Your task to perform on an android device: turn notification dots on Image 0: 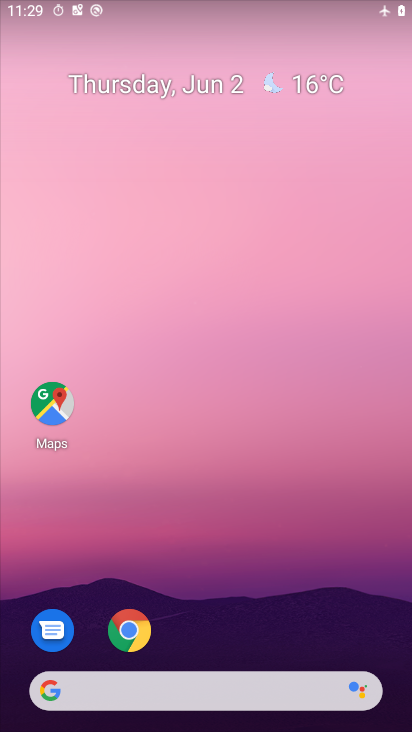
Step 0: drag from (241, 639) to (320, 16)
Your task to perform on an android device: turn notification dots on Image 1: 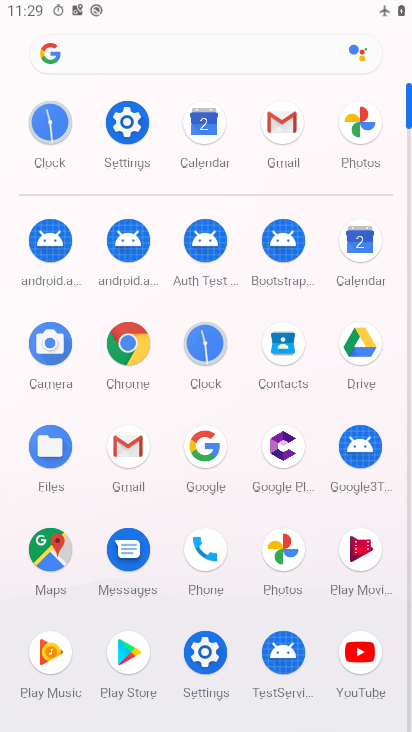
Step 1: click (124, 141)
Your task to perform on an android device: turn notification dots on Image 2: 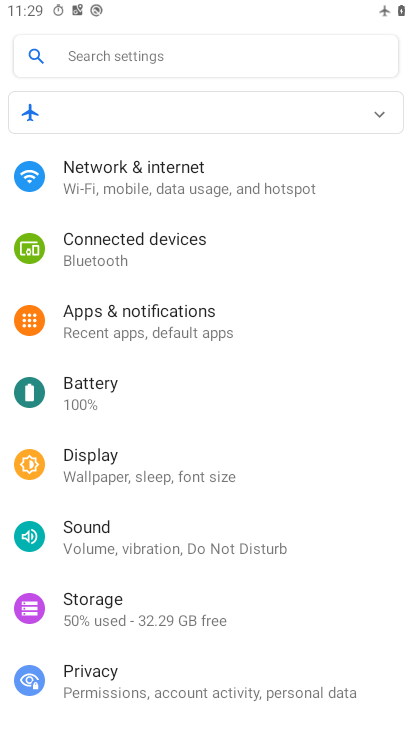
Step 2: click (218, 336)
Your task to perform on an android device: turn notification dots on Image 3: 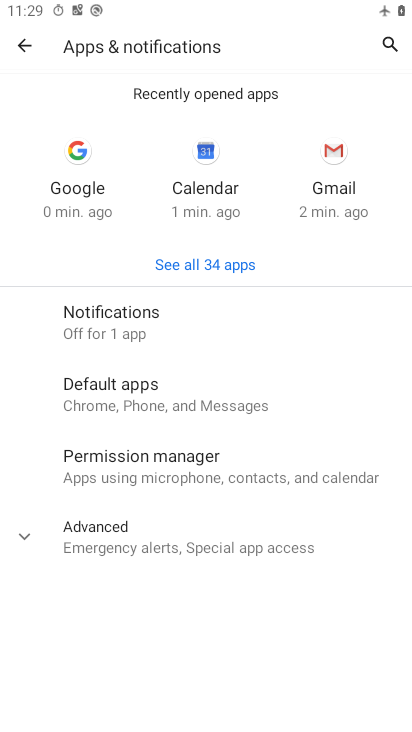
Step 3: click (161, 334)
Your task to perform on an android device: turn notification dots on Image 4: 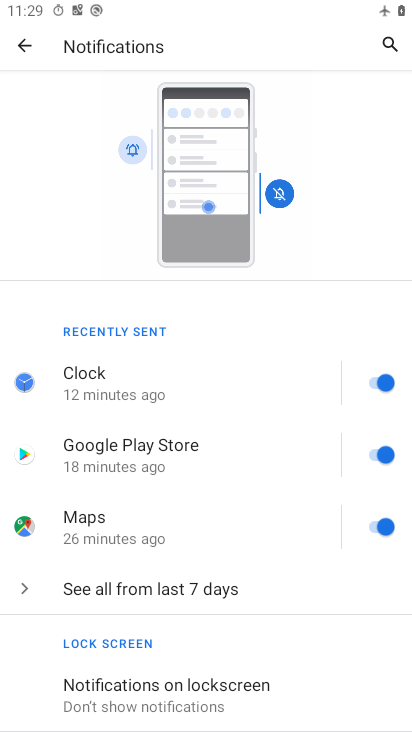
Step 4: drag from (189, 620) to (217, 444)
Your task to perform on an android device: turn notification dots on Image 5: 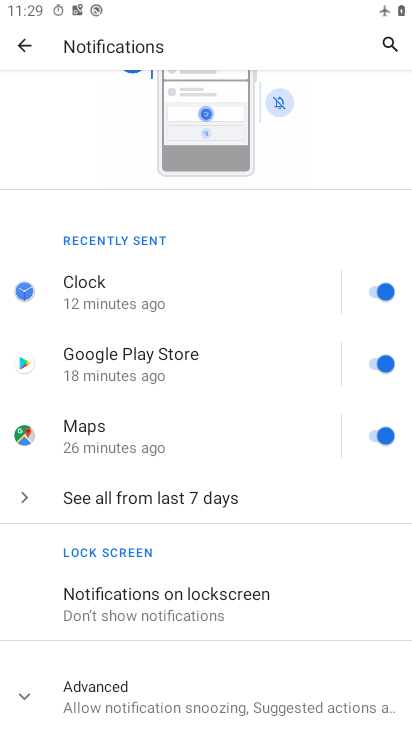
Step 5: click (124, 704)
Your task to perform on an android device: turn notification dots on Image 6: 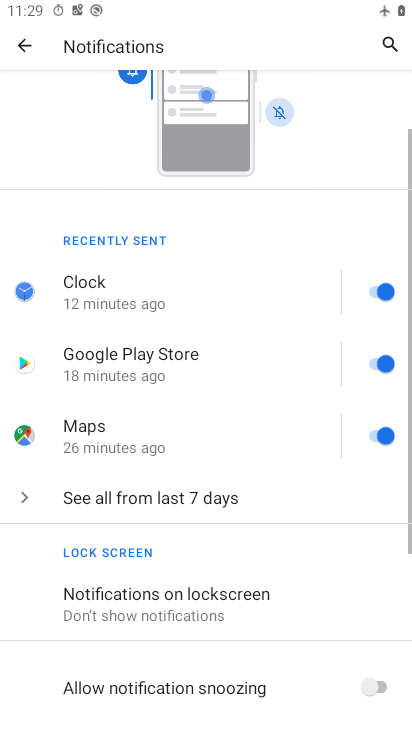
Step 6: drag from (237, 643) to (261, 139)
Your task to perform on an android device: turn notification dots on Image 7: 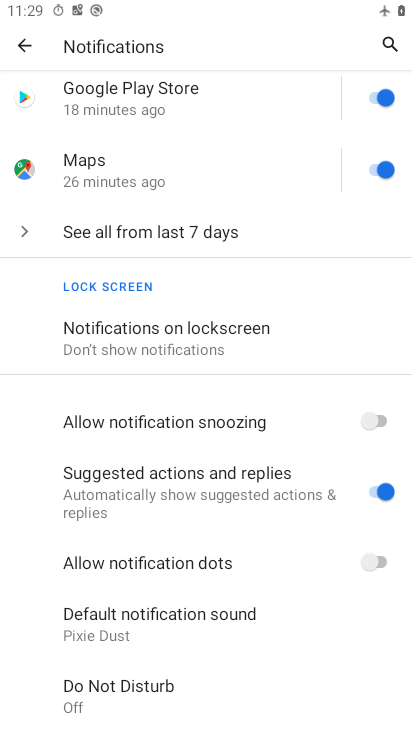
Step 7: click (397, 567)
Your task to perform on an android device: turn notification dots on Image 8: 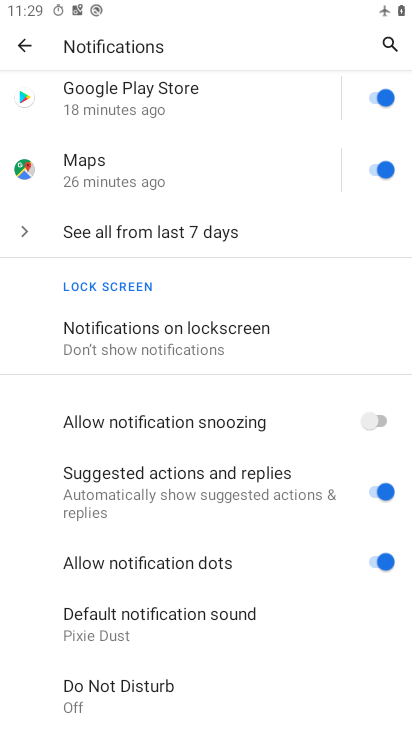
Step 8: task complete